Your task to perform on an android device: Go to location settings Image 0: 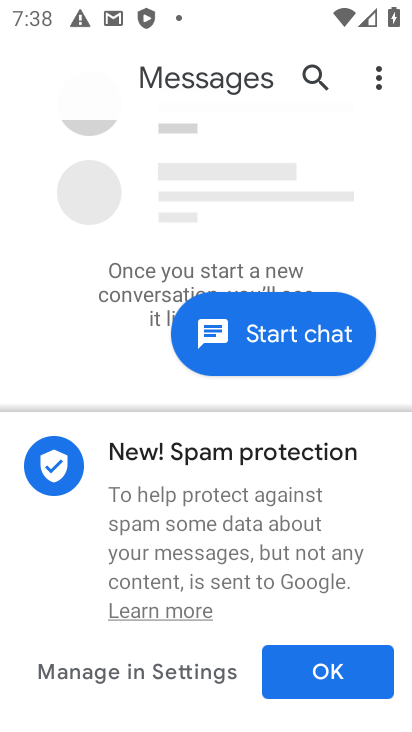
Step 0: press home button
Your task to perform on an android device: Go to location settings Image 1: 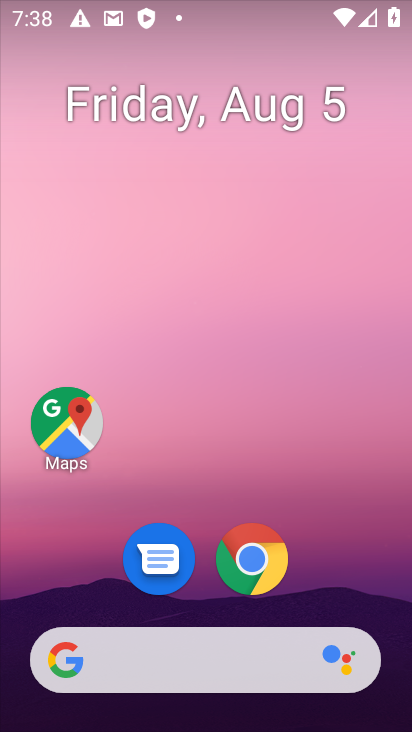
Step 1: drag from (208, 568) to (212, 308)
Your task to perform on an android device: Go to location settings Image 2: 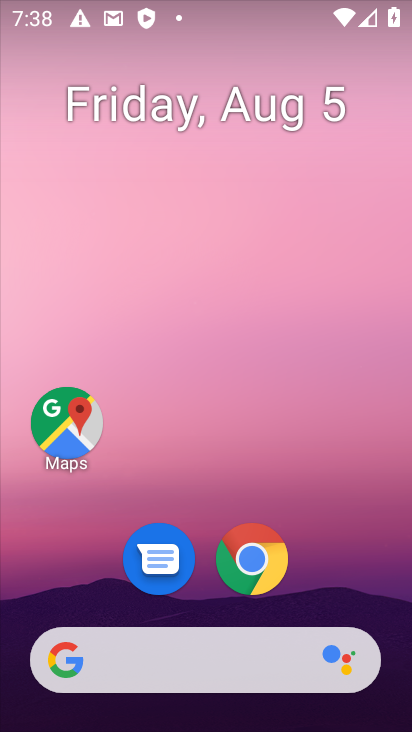
Step 2: drag from (205, 593) to (267, 57)
Your task to perform on an android device: Go to location settings Image 3: 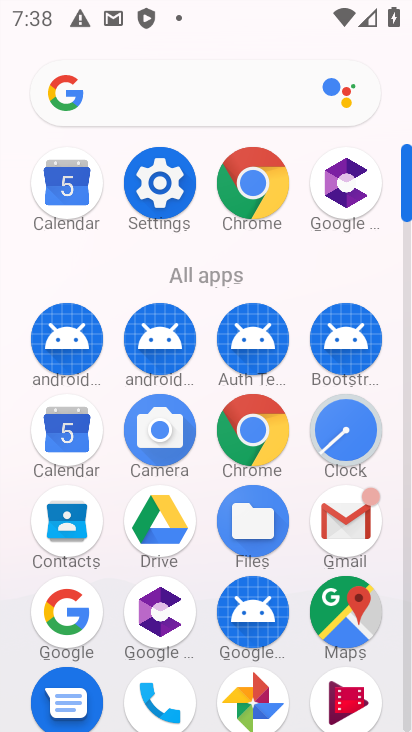
Step 3: click (161, 183)
Your task to perform on an android device: Go to location settings Image 4: 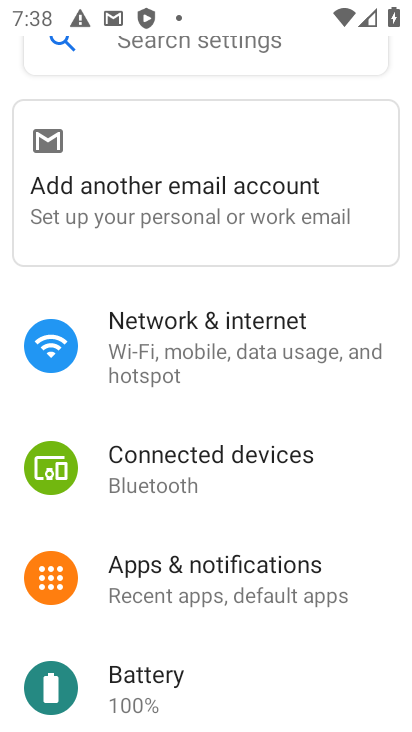
Step 4: drag from (194, 635) to (196, 355)
Your task to perform on an android device: Go to location settings Image 5: 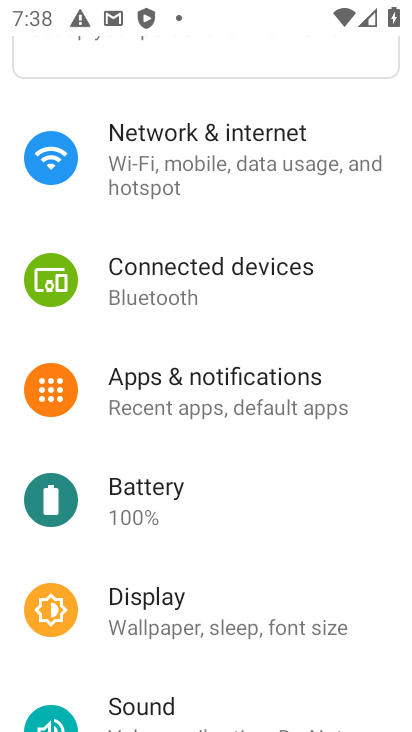
Step 5: drag from (169, 558) to (217, 177)
Your task to perform on an android device: Go to location settings Image 6: 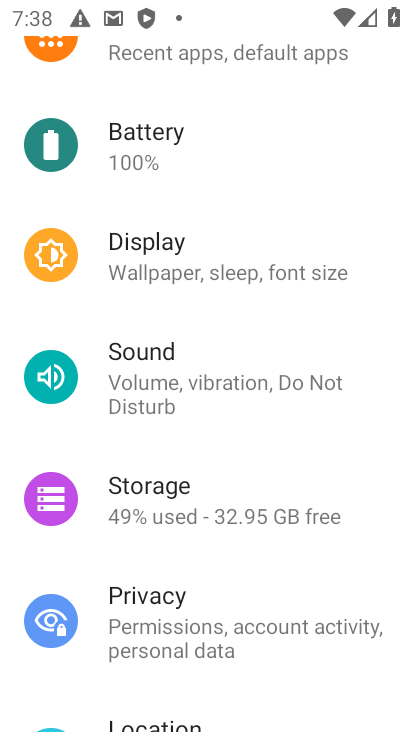
Step 6: drag from (203, 687) to (228, 345)
Your task to perform on an android device: Go to location settings Image 7: 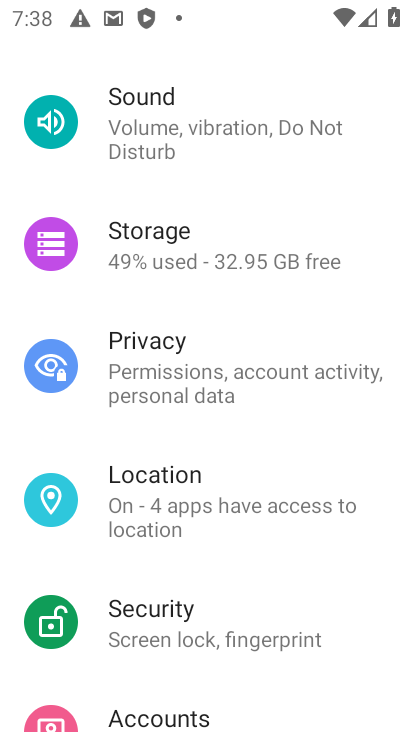
Step 7: click (168, 478)
Your task to perform on an android device: Go to location settings Image 8: 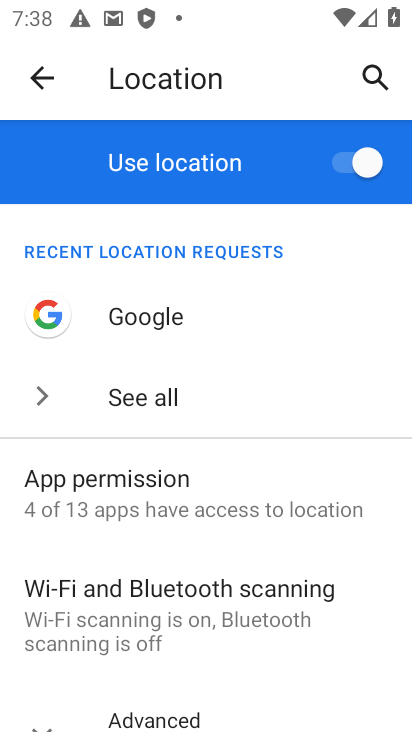
Step 8: task complete